Your task to perform on an android device: add a label to a message in the gmail app Image 0: 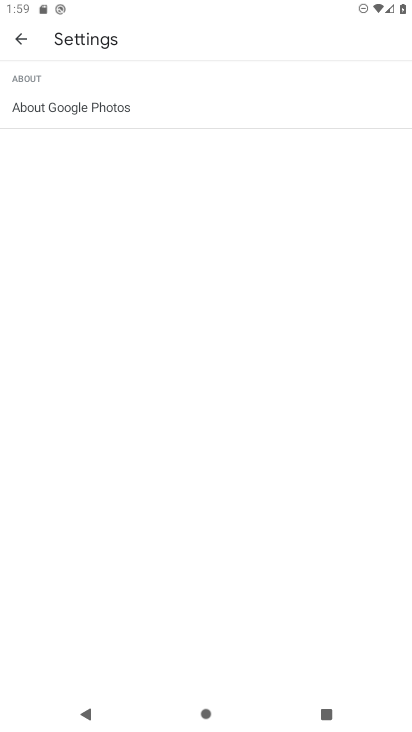
Step 0: press home button
Your task to perform on an android device: add a label to a message in the gmail app Image 1: 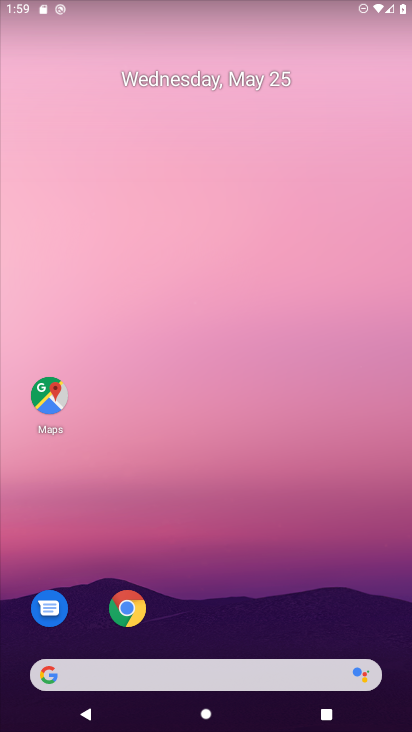
Step 1: drag from (337, 620) to (308, 130)
Your task to perform on an android device: add a label to a message in the gmail app Image 2: 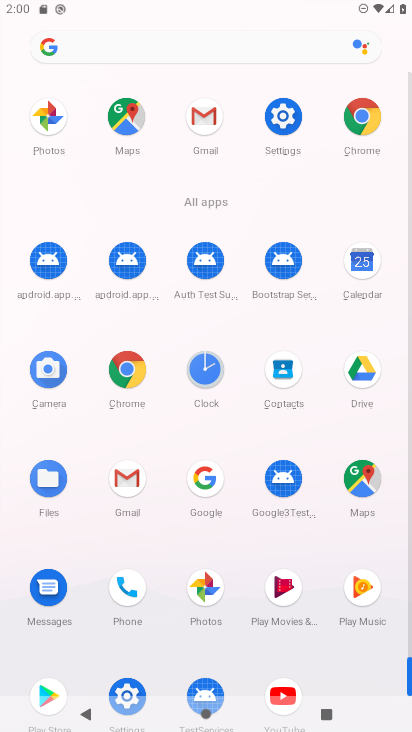
Step 2: click (127, 479)
Your task to perform on an android device: add a label to a message in the gmail app Image 3: 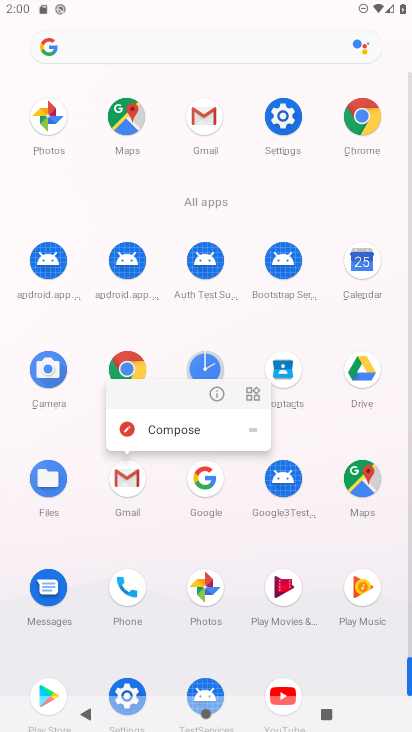
Step 3: click (127, 479)
Your task to perform on an android device: add a label to a message in the gmail app Image 4: 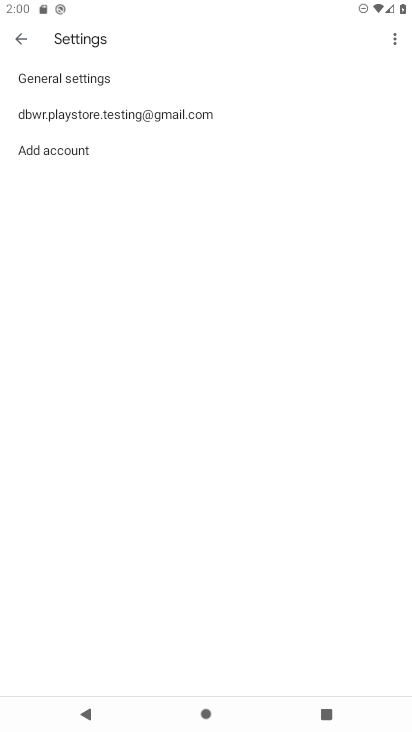
Step 4: press back button
Your task to perform on an android device: add a label to a message in the gmail app Image 5: 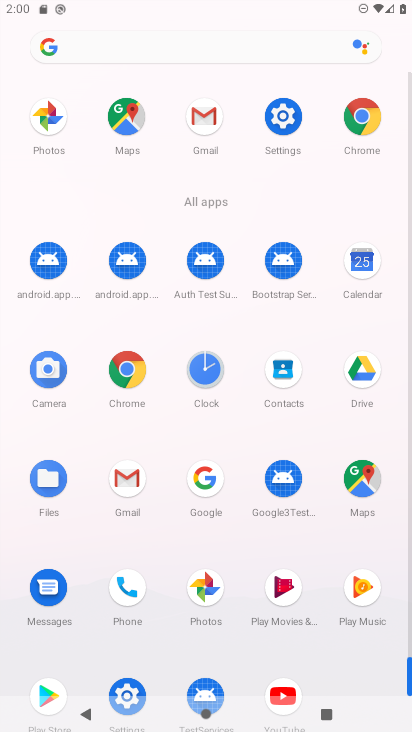
Step 5: click (127, 478)
Your task to perform on an android device: add a label to a message in the gmail app Image 6: 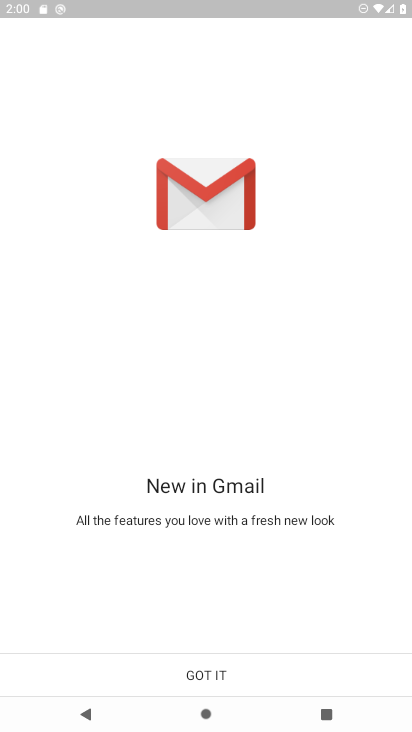
Step 6: click (207, 674)
Your task to perform on an android device: add a label to a message in the gmail app Image 7: 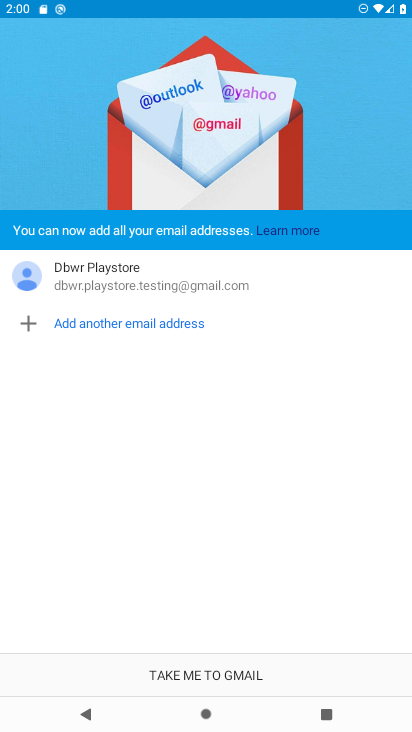
Step 7: click (189, 674)
Your task to perform on an android device: add a label to a message in the gmail app Image 8: 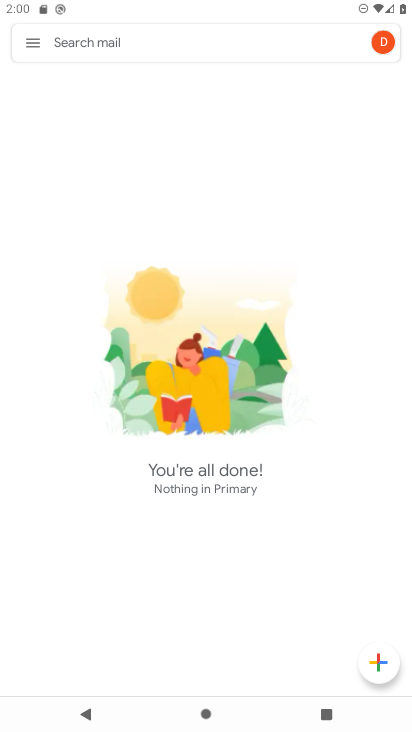
Step 8: click (27, 39)
Your task to perform on an android device: add a label to a message in the gmail app Image 9: 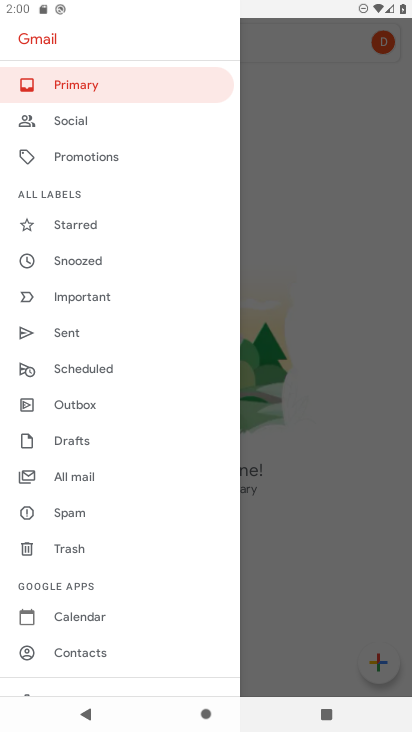
Step 9: click (69, 480)
Your task to perform on an android device: add a label to a message in the gmail app Image 10: 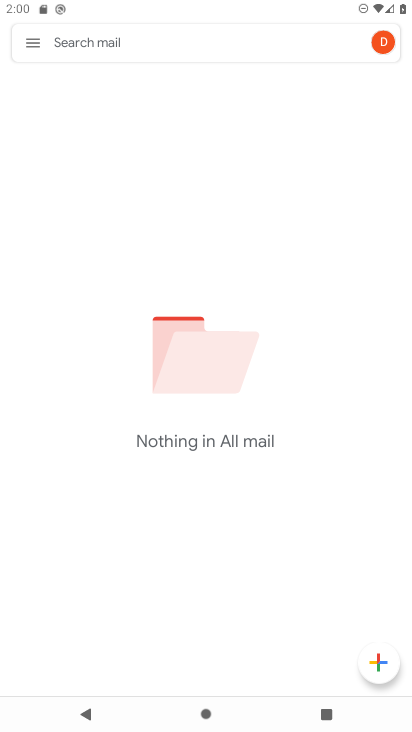
Step 10: task complete